Your task to perform on an android device: change alarm snooze length Image 0: 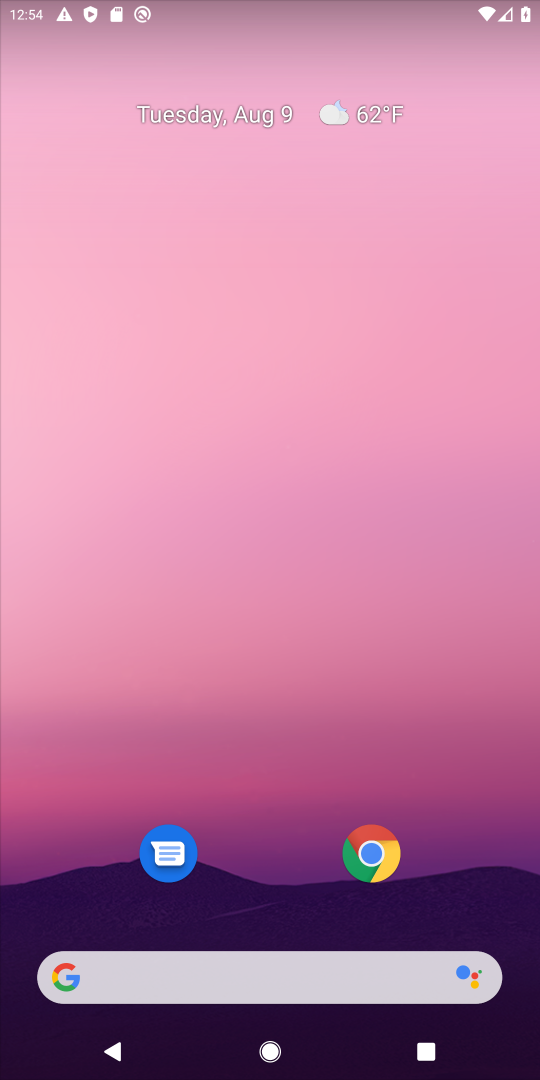
Step 0: drag from (280, 881) to (298, 128)
Your task to perform on an android device: change alarm snooze length Image 1: 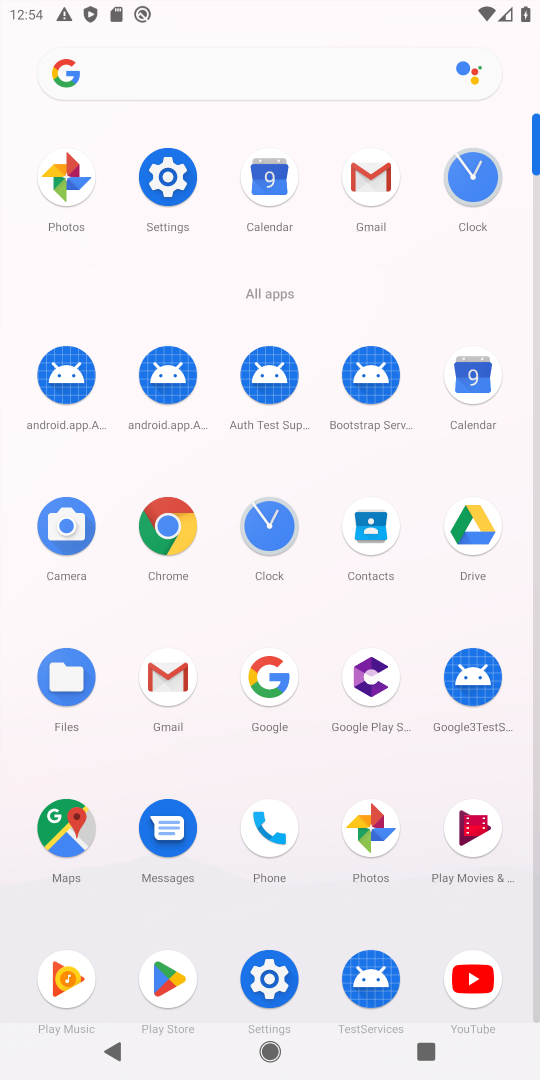
Step 1: click (158, 175)
Your task to perform on an android device: change alarm snooze length Image 2: 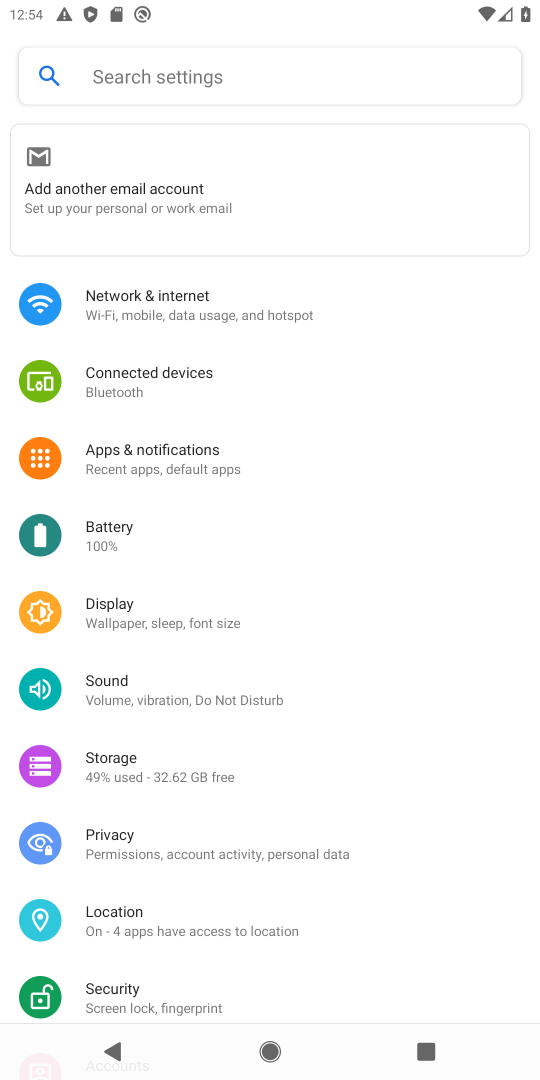
Step 2: press home button
Your task to perform on an android device: change alarm snooze length Image 3: 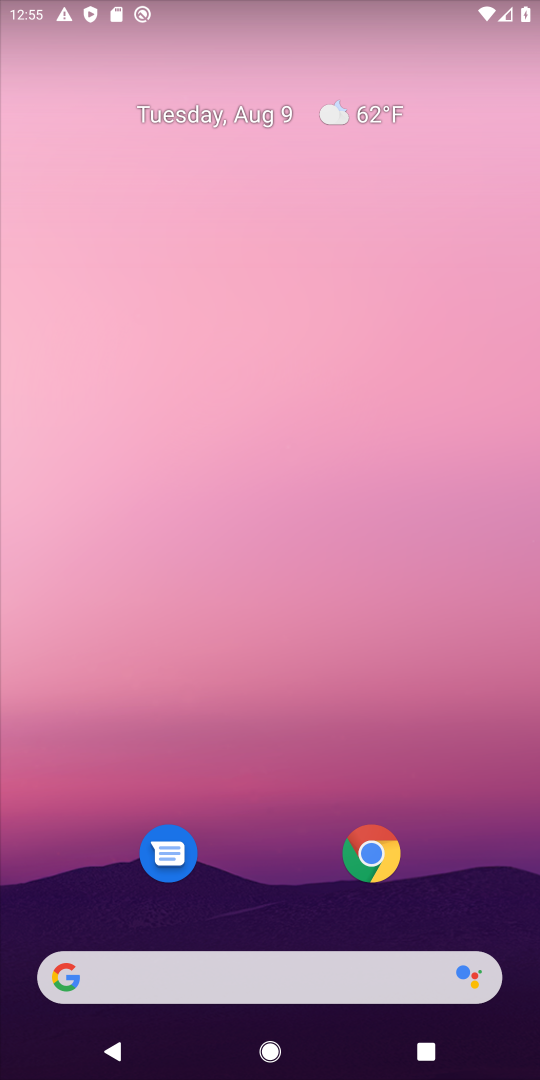
Step 3: drag from (260, 813) to (311, 276)
Your task to perform on an android device: change alarm snooze length Image 4: 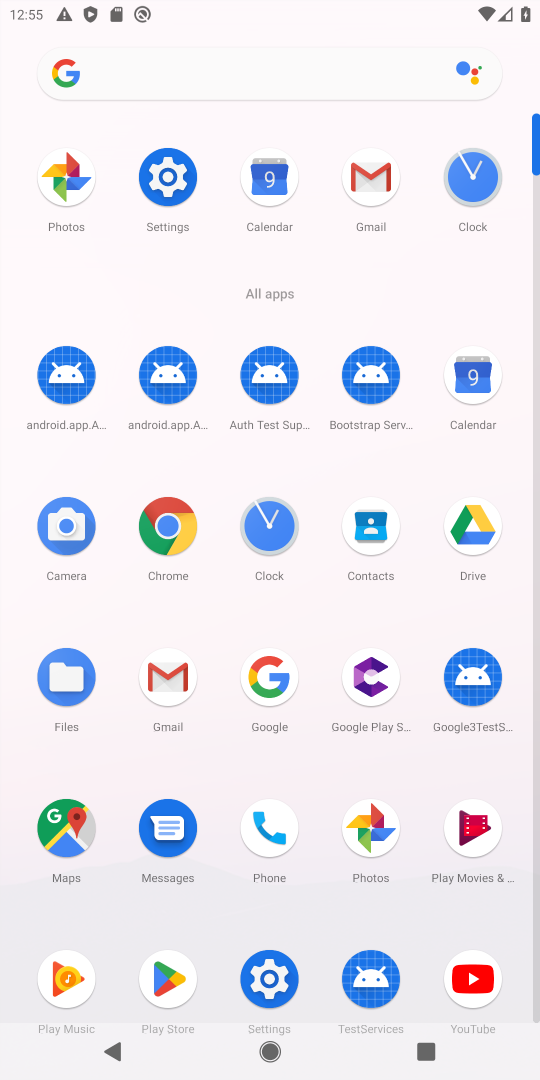
Step 4: click (462, 169)
Your task to perform on an android device: change alarm snooze length Image 5: 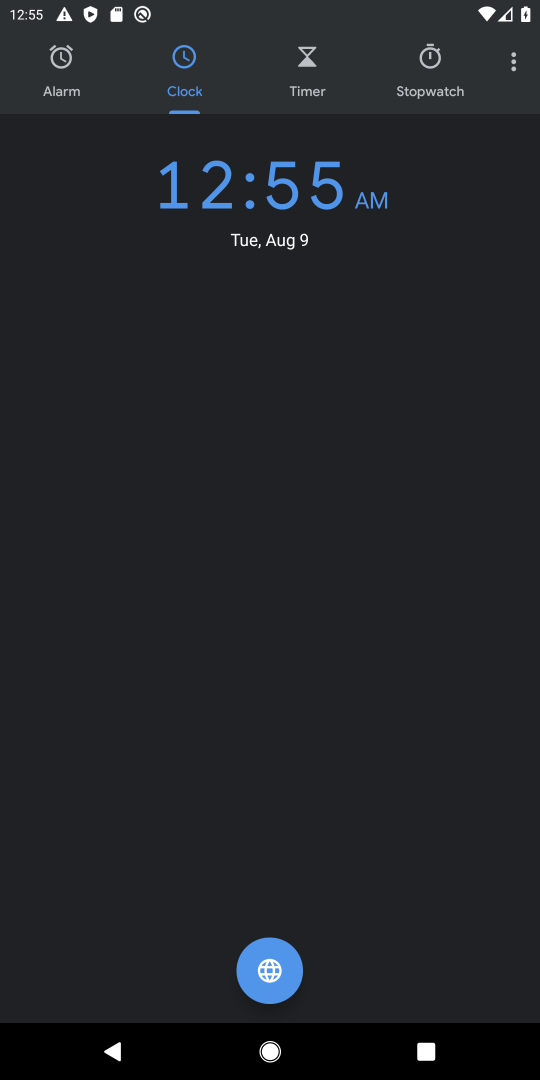
Step 5: click (507, 72)
Your task to perform on an android device: change alarm snooze length Image 6: 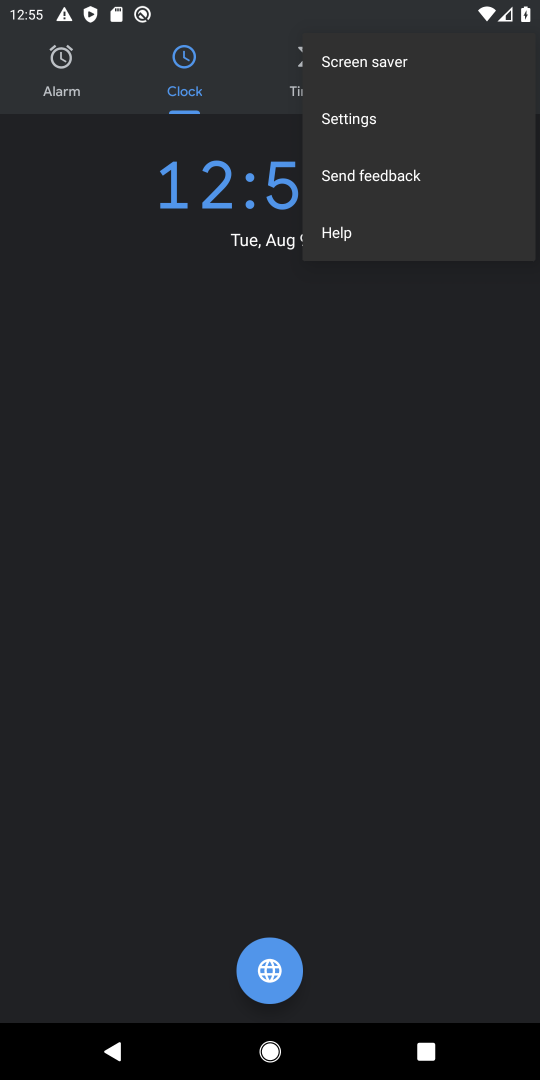
Step 6: click (372, 126)
Your task to perform on an android device: change alarm snooze length Image 7: 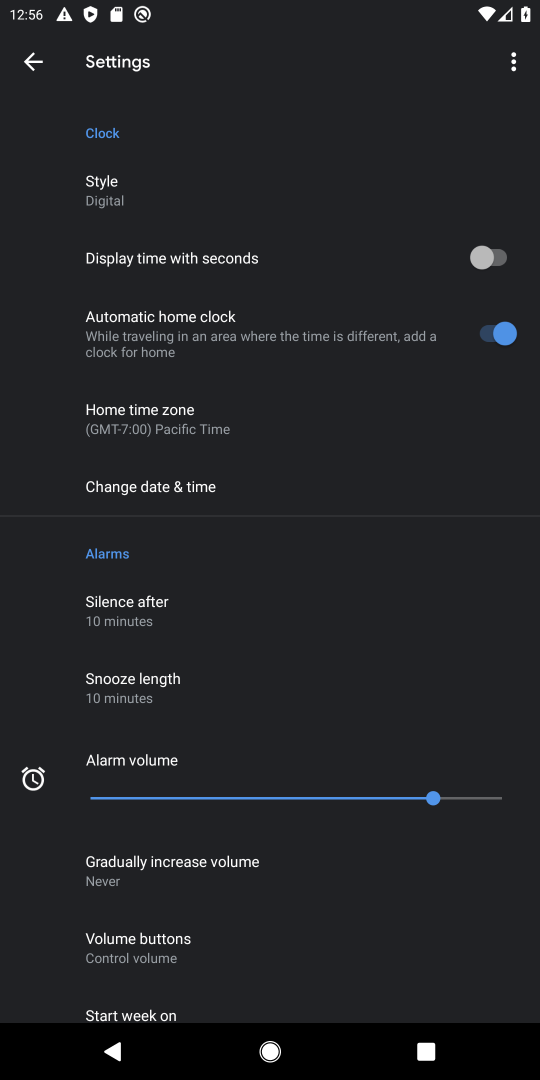
Step 7: click (140, 686)
Your task to perform on an android device: change alarm snooze length Image 8: 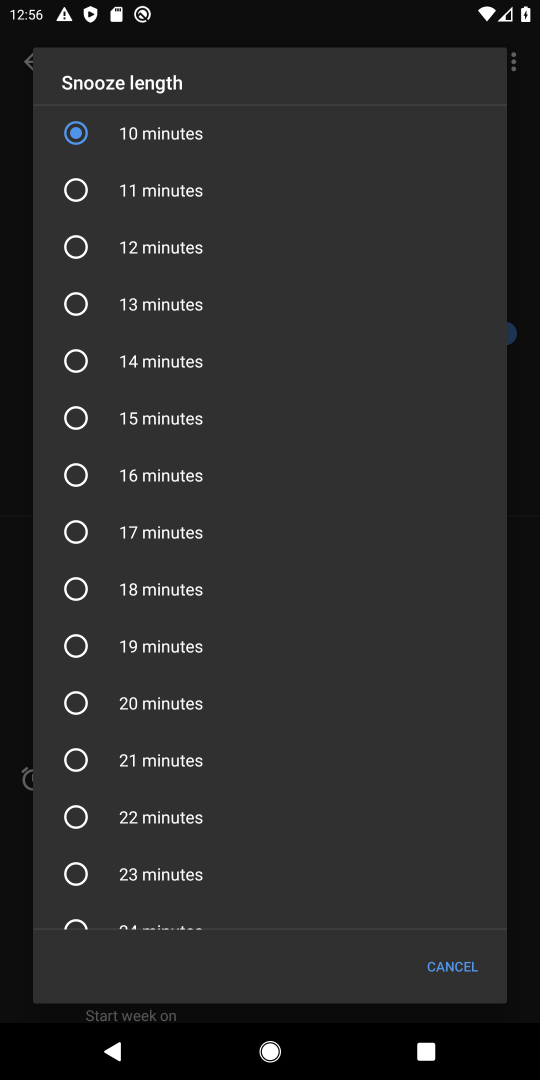
Step 8: click (73, 429)
Your task to perform on an android device: change alarm snooze length Image 9: 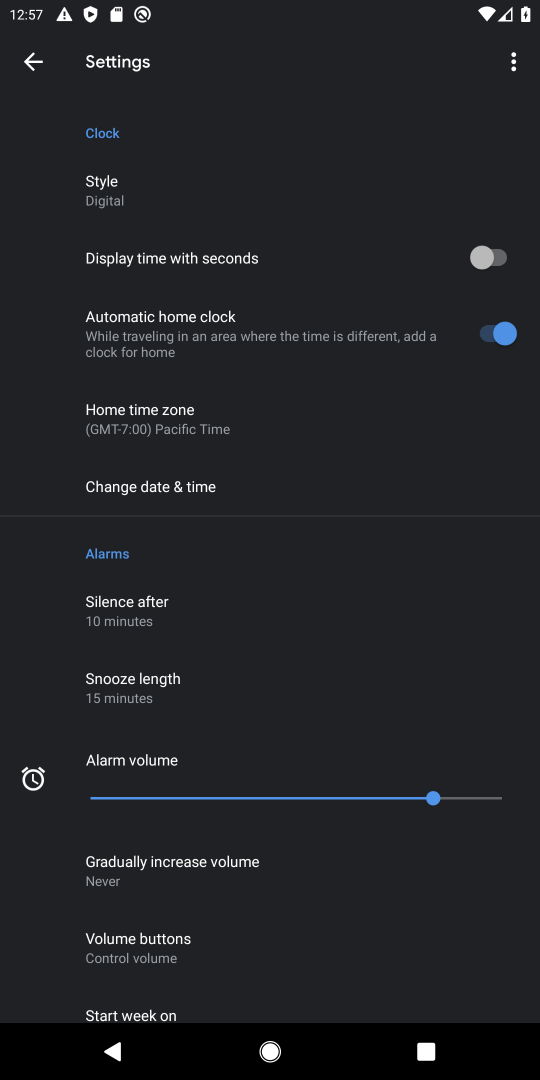
Step 9: task complete